Your task to perform on an android device: toggle show notifications on the lock screen Image 0: 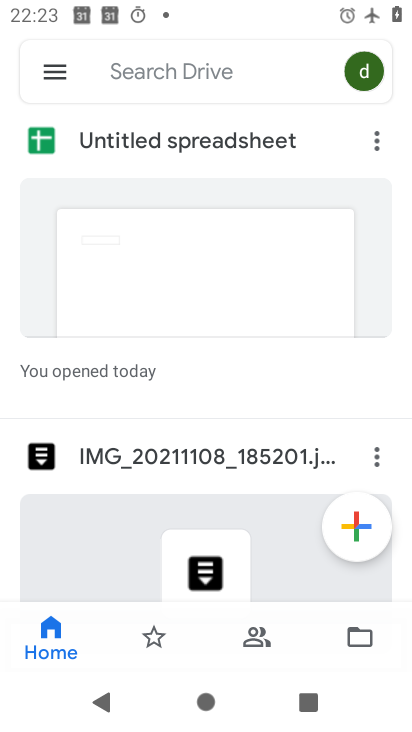
Step 0: press home button
Your task to perform on an android device: toggle show notifications on the lock screen Image 1: 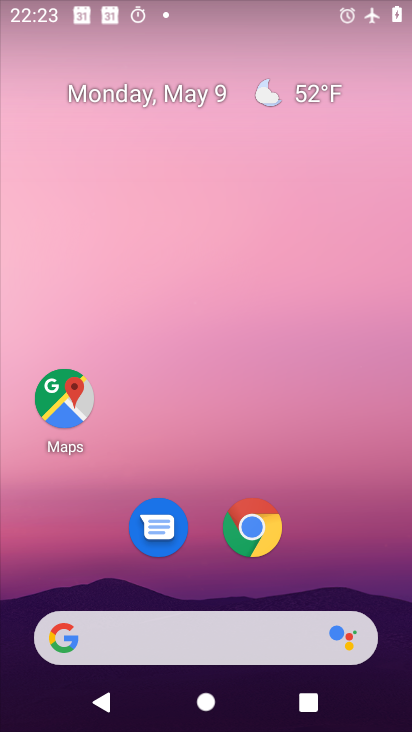
Step 1: drag from (200, 584) to (219, 100)
Your task to perform on an android device: toggle show notifications on the lock screen Image 2: 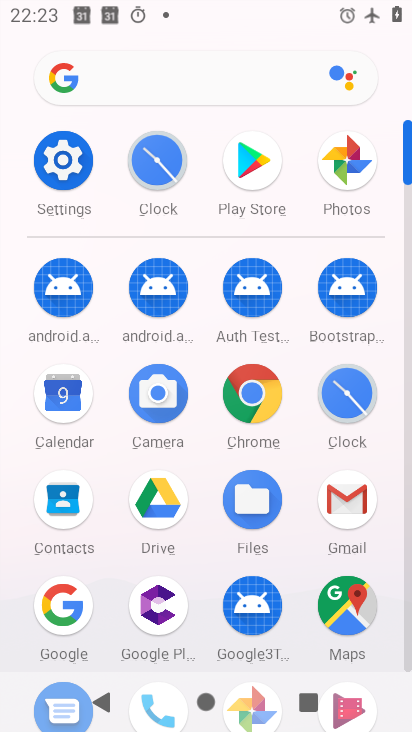
Step 2: click (66, 163)
Your task to perform on an android device: toggle show notifications on the lock screen Image 3: 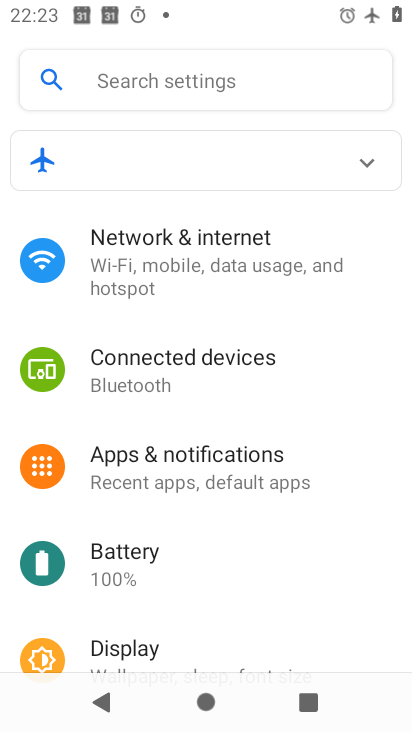
Step 3: click (206, 471)
Your task to perform on an android device: toggle show notifications on the lock screen Image 4: 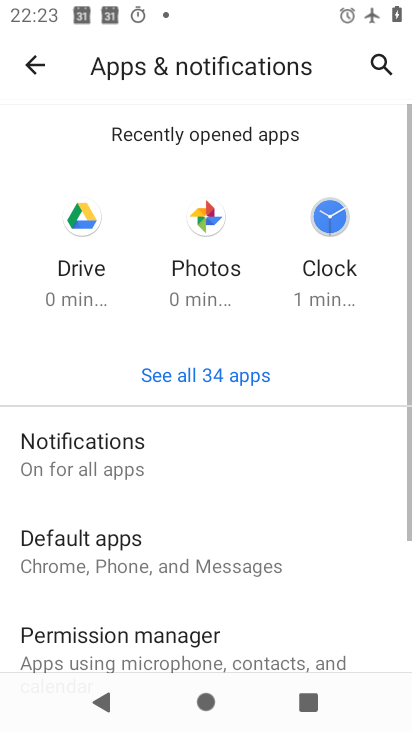
Step 4: click (134, 457)
Your task to perform on an android device: toggle show notifications on the lock screen Image 5: 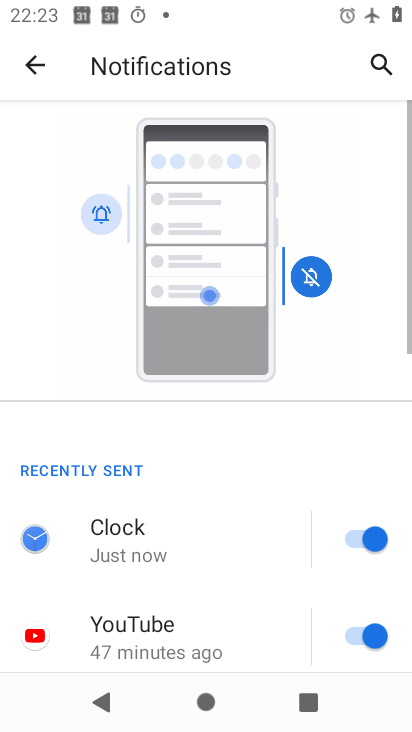
Step 5: drag from (187, 527) to (202, 8)
Your task to perform on an android device: toggle show notifications on the lock screen Image 6: 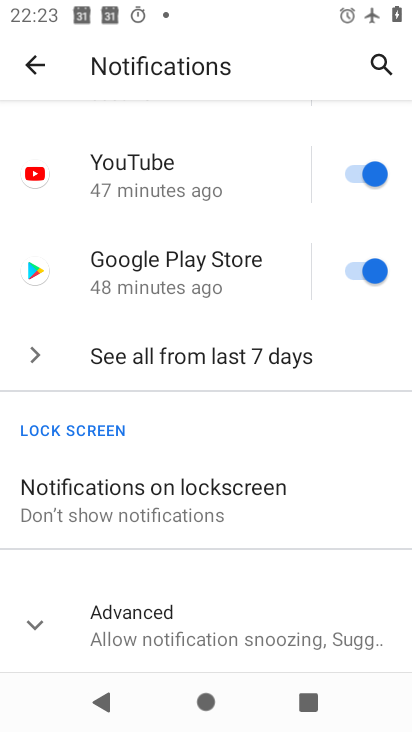
Step 6: click (150, 517)
Your task to perform on an android device: toggle show notifications on the lock screen Image 7: 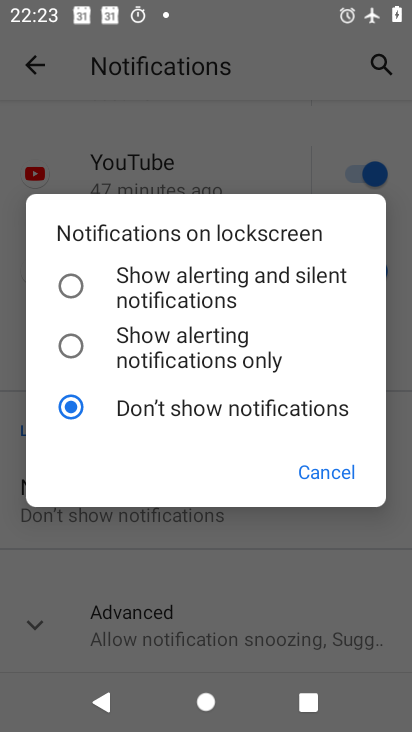
Step 7: click (70, 298)
Your task to perform on an android device: toggle show notifications on the lock screen Image 8: 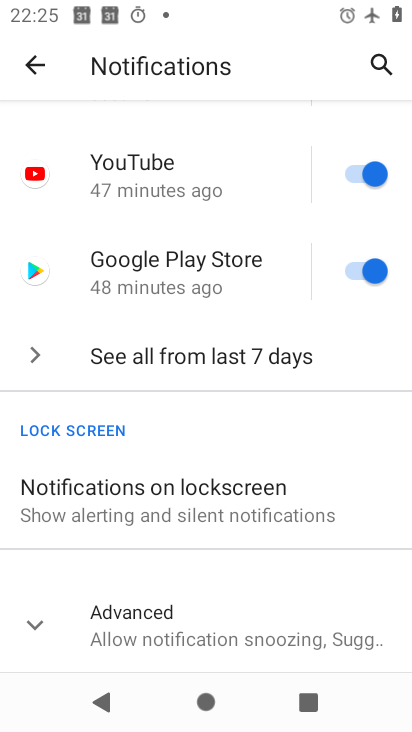
Step 8: task complete